Your task to perform on an android device: Show me recent news Image 0: 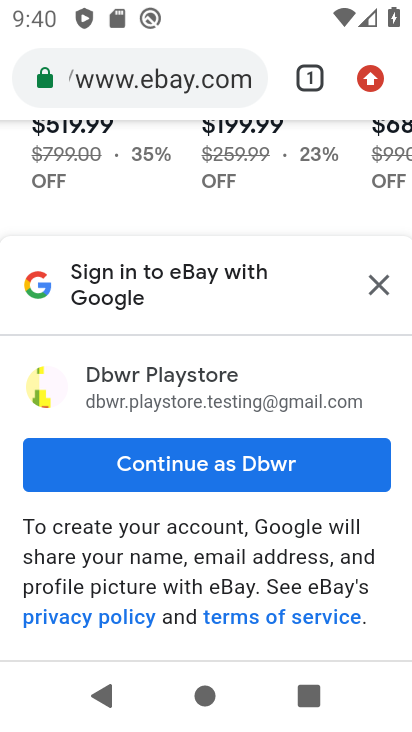
Step 0: press home button
Your task to perform on an android device: Show me recent news Image 1: 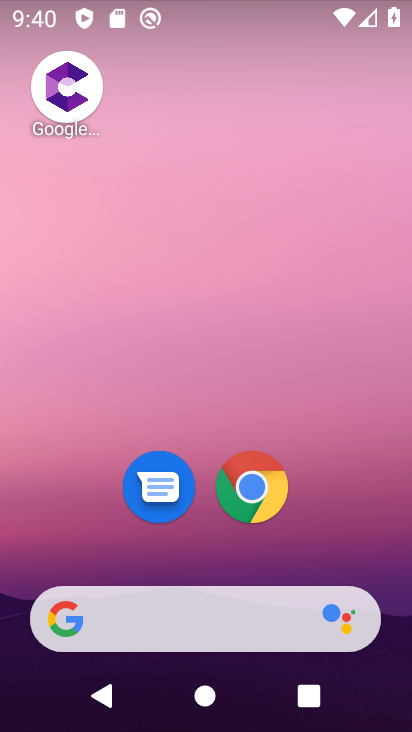
Step 1: drag from (195, 571) to (244, 80)
Your task to perform on an android device: Show me recent news Image 2: 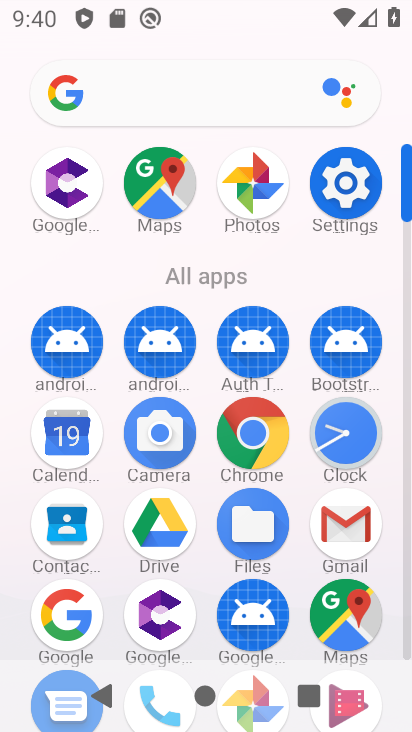
Step 2: click (64, 614)
Your task to perform on an android device: Show me recent news Image 3: 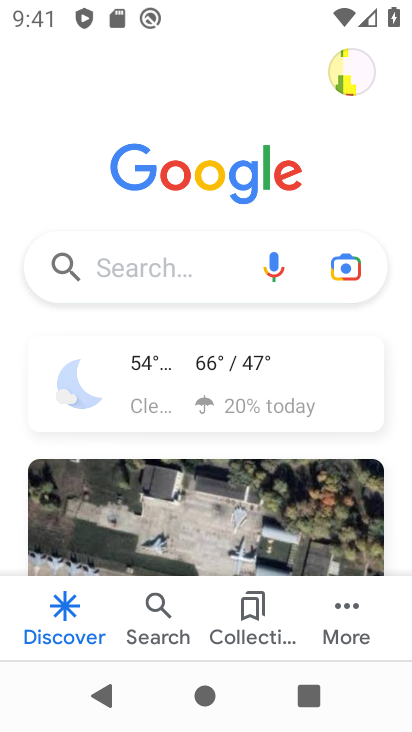
Step 3: click (150, 271)
Your task to perform on an android device: Show me recent news Image 4: 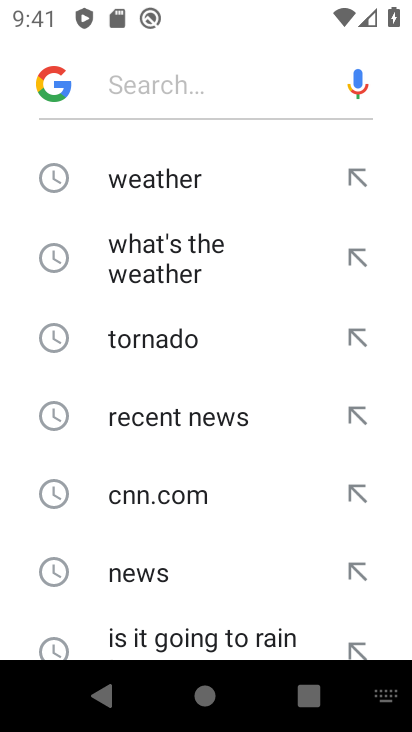
Step 4: click (145, 418)
Your task to perform on an android device: Show me recent news Image 5: 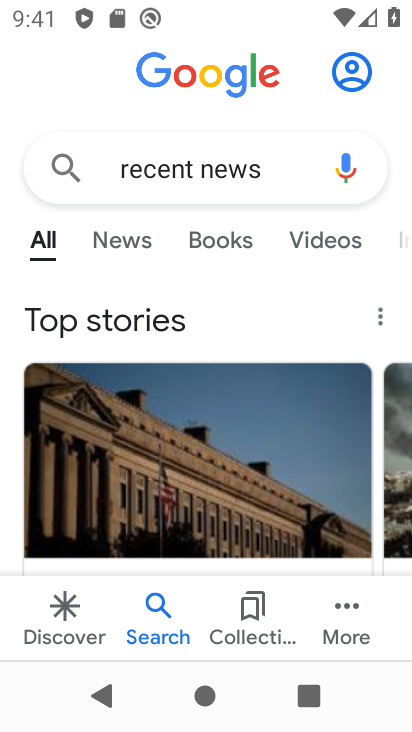
Step 5: task complete